Your task to perform on an android device: allow notifications from all sites in the chrome app Image 0: 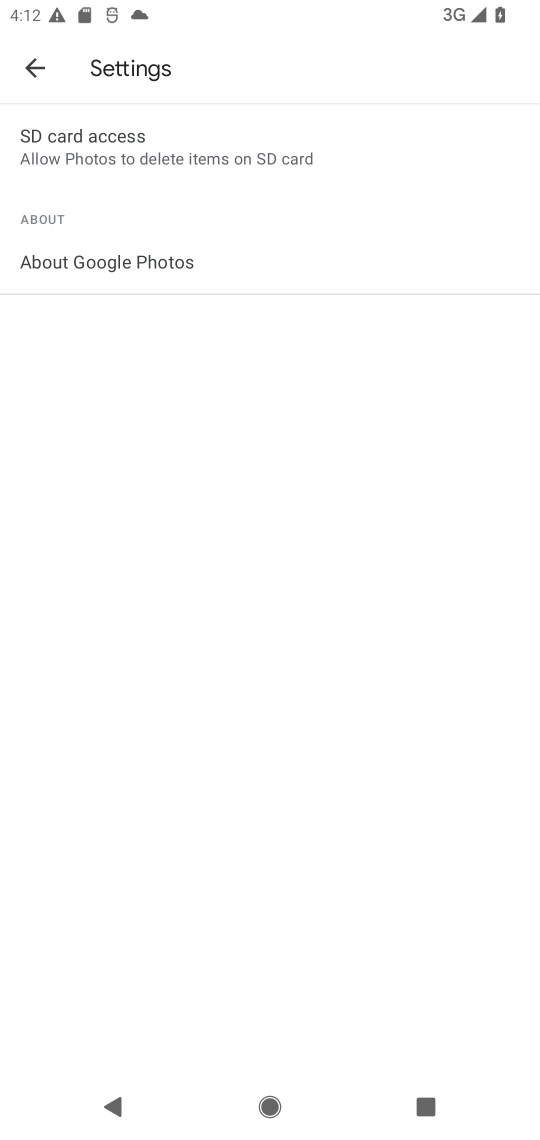
Step 0: press home button
Your task to perform on an android device: allow notifications from all sites in the chrome app Image 1: 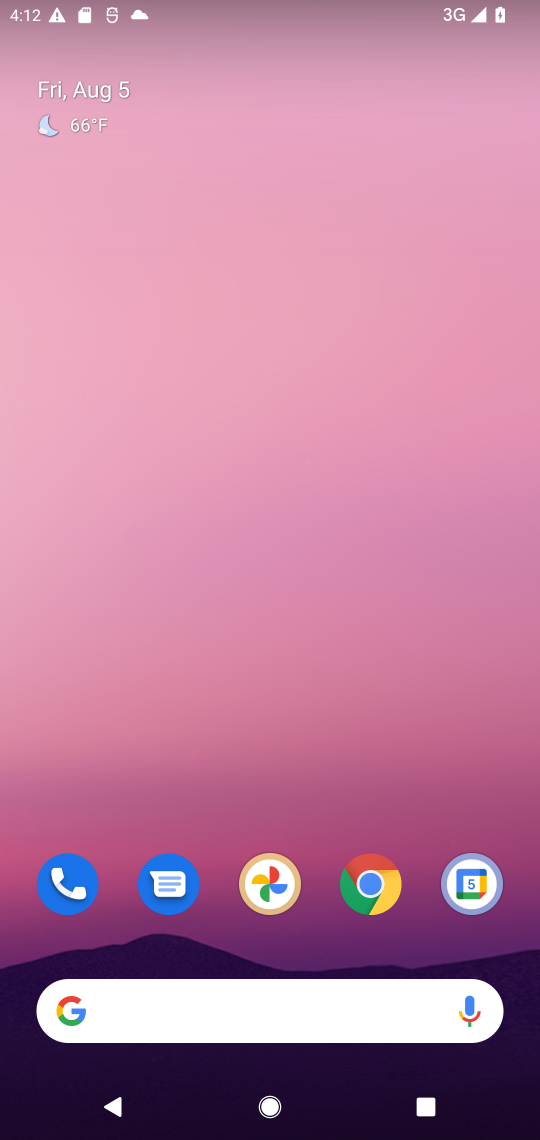
Step 1: drag from (524, 913) to (322, 107)
Your task to perform on an android device: allow notifications from all sites in the chrome app Image 2: 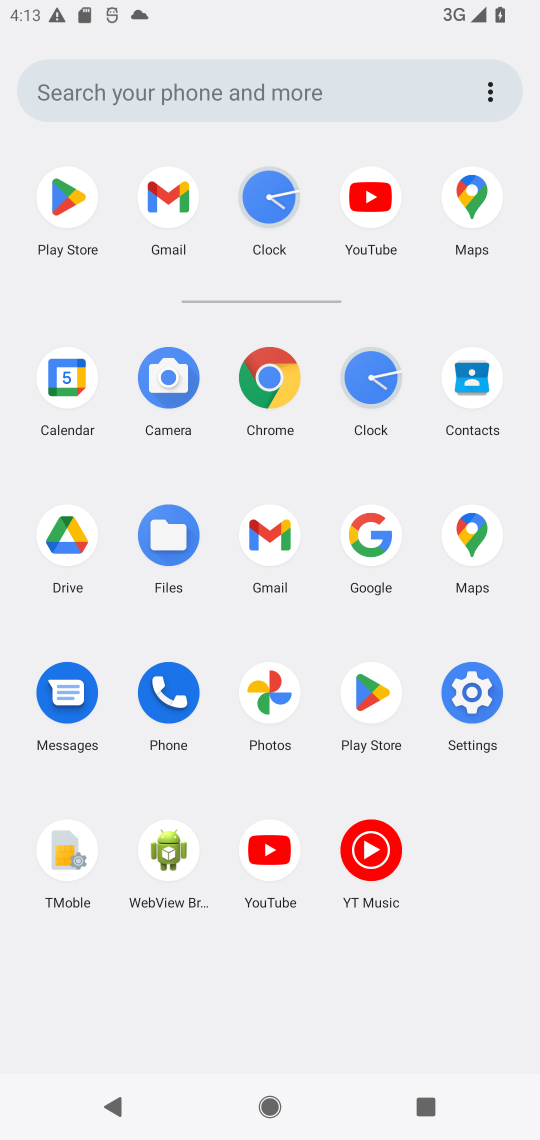
Step 2: click (262, 383)
Your task to perform on an android device: allow notifications from all sites in the chrome app Image 3: 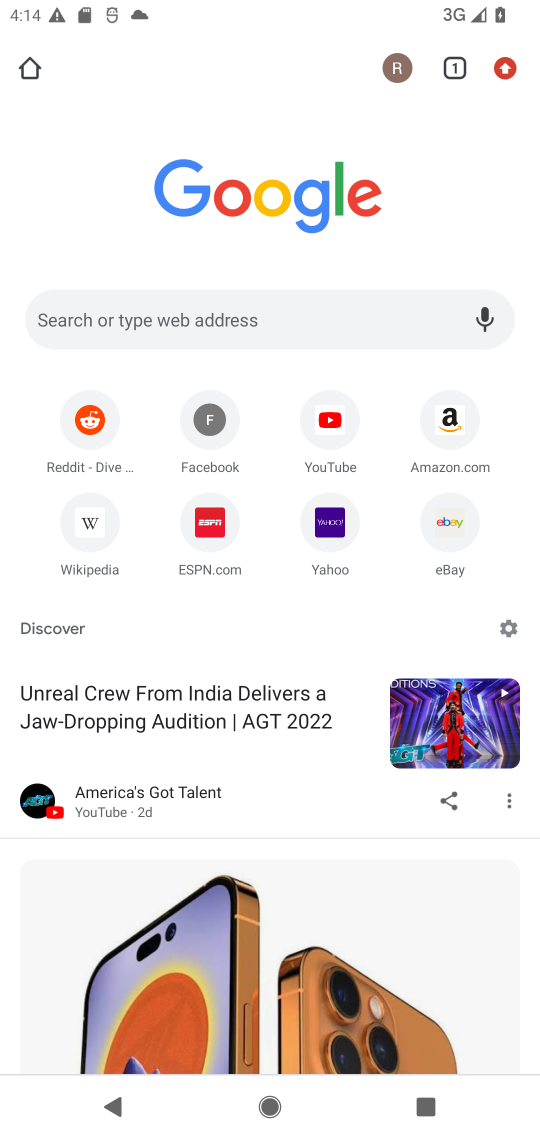
Step 3: click (514, 69)
Your task to perform on an android device: allow notifications from all sites in the chrome app Image 4: 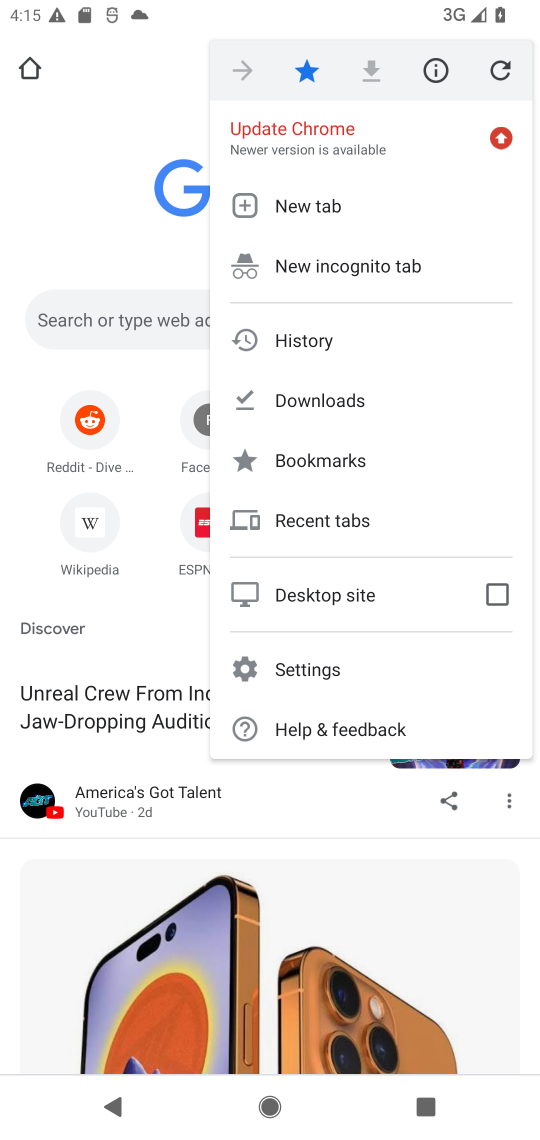
Step 4: click (316, 671)
Your task to perform on an android device: allow notifications from all sites in the chrome app Image 5: 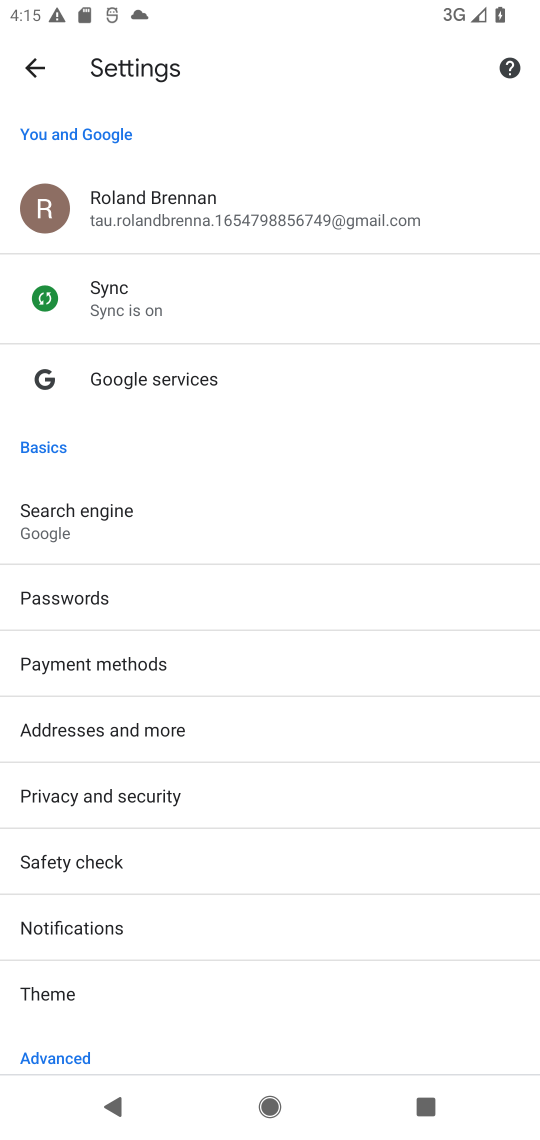
Step 5: task complete